Your task to perform on an android device: allow notifications from all sites in the chrome app Image 0: 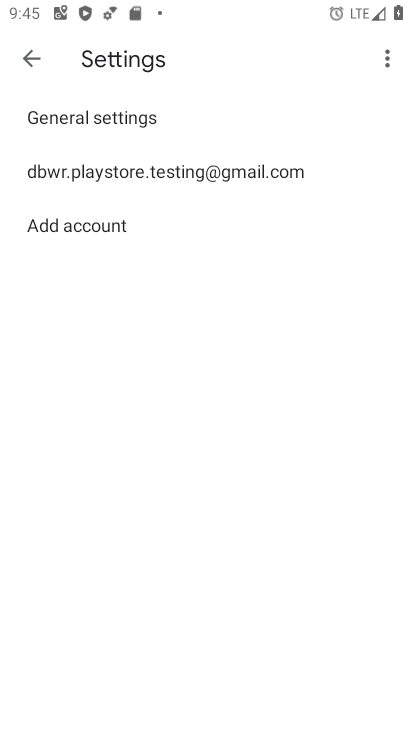
Step 0: press home button
Your task to perform on an android device: allow notifications from all sites in the chrome app Image 1: 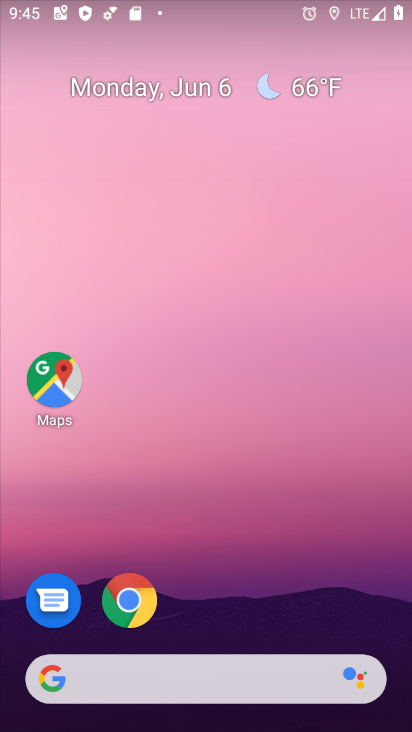
Step 1: drag from (69, 519) to (275, 239)
Your task to perform on an android device: allow notifications from all sites in the chrome app Image 2: 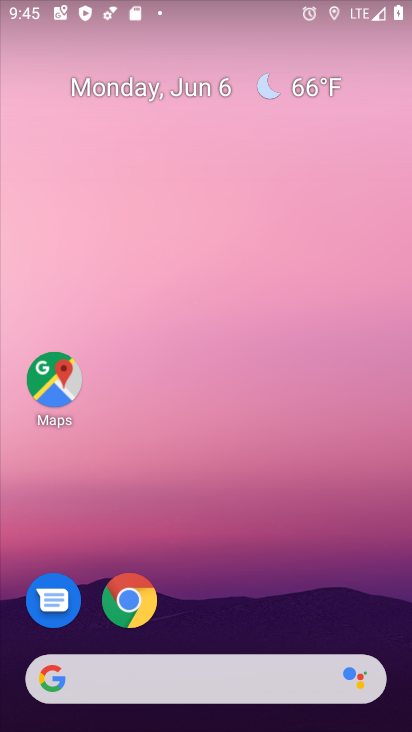
Step 2: drag from (76, 537) to (240, 255)
Your task to perform on an android device: allow notifications from all sites in the chrome app Image 3: 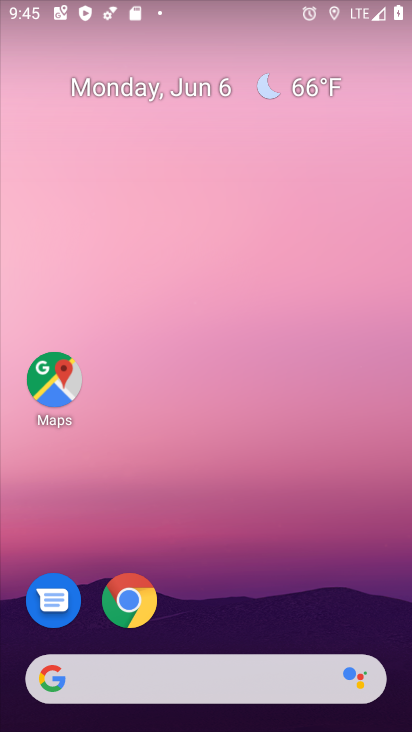
Step 3: drag from (28, 592) to (331, 123)
Your task to perform on an android device: allow notifications from all sites in the chrome app Image 4: 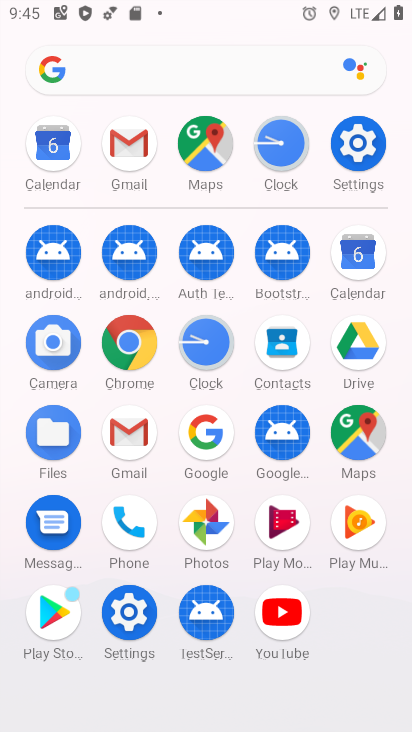
Step 4: click (344, 136)
Your task to perform on an android device: allow notifications from all sites in the chrome app Image 5: 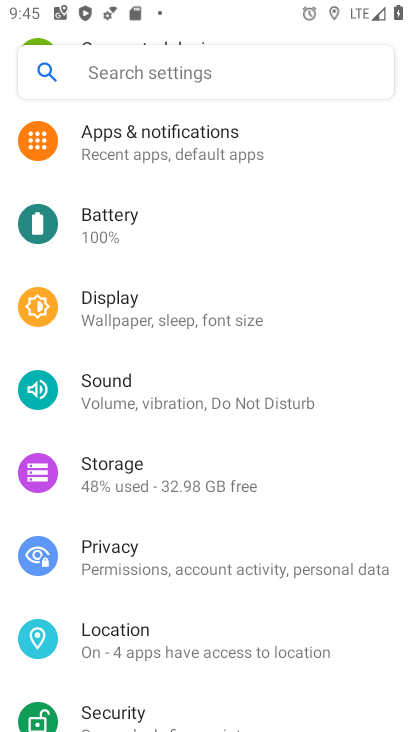
Step 5: click (344, 139)
Your task to perform on an android device: allow notifications from all sites in the chrome app Image 6: 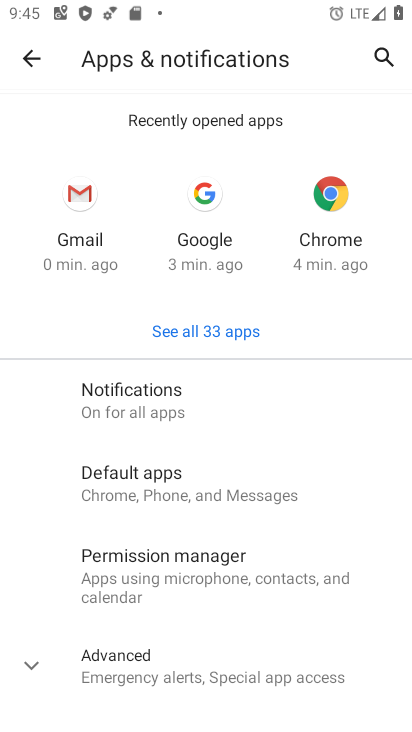
Step 6: click (123, 386)
Your task to perform on an android device: allow notifications from all sites in the chrome app Image 7: 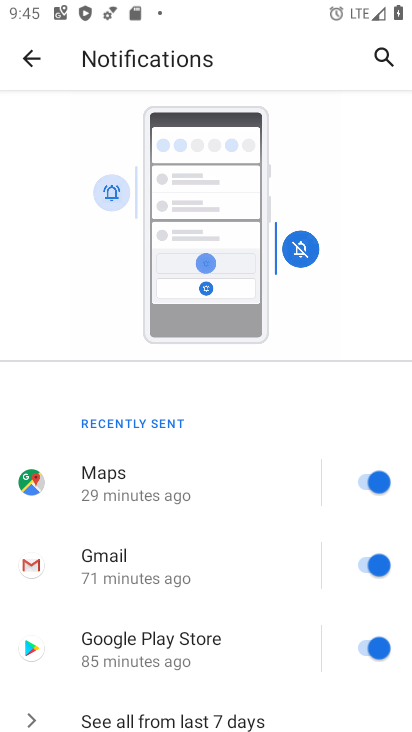
Step 7: drag from (36, 632) to (373, 351)
Your task to perform on an android device: allow notifications from all sites in the chrome app Image 8: 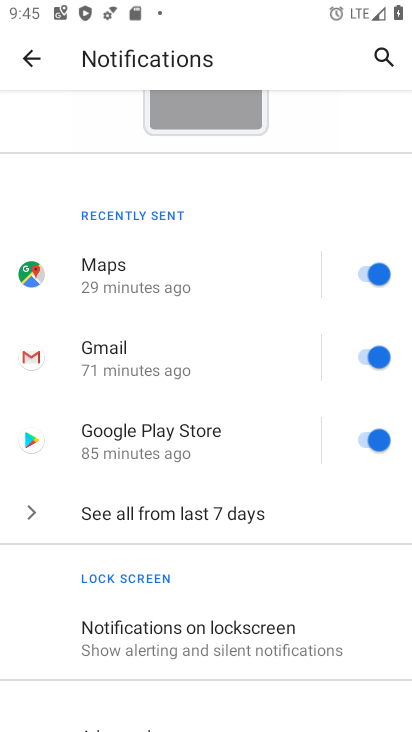
Step 8: press home button
Your task to perform on an android device: allow notifications from all sites in the chrome app Image 9: 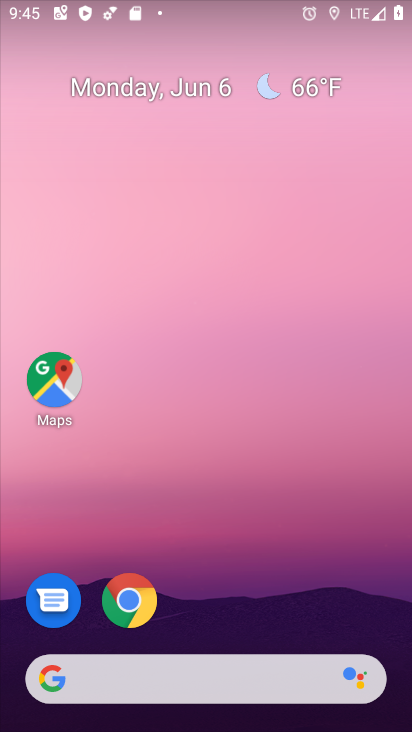
Step 9: click (124, 598)
Your task to perform on an android device: allow notifications from all sites in the chrome app Image 10: 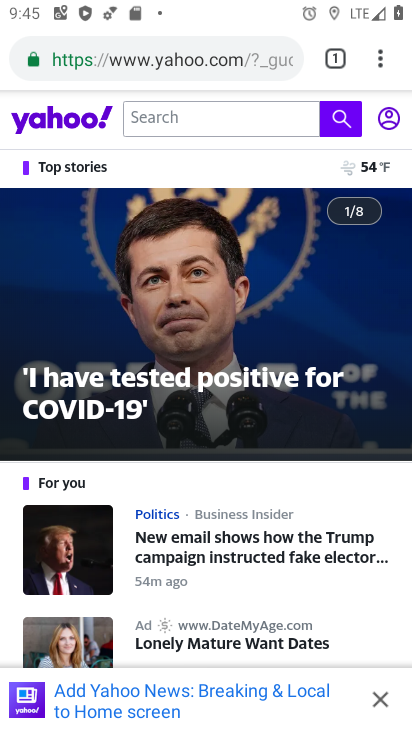
Step 10: click (384, 54)
Your task to perform on an android device: allow notifications from all sites in the chrome app Image 11: 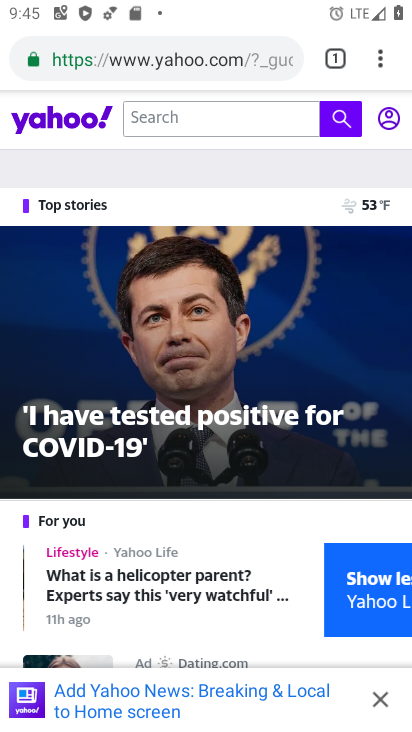
Step 11: click (382, 56)
Your task to perform on an android device: allow notifications from all sites in the chrome app Image 12: 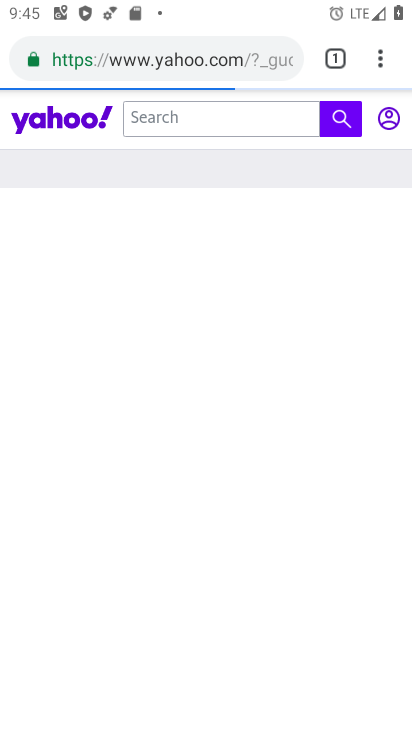
Step 12: click (382, 56)
Your task to perform on an android device: allow notifications from all sites in the chrome app Image 13: 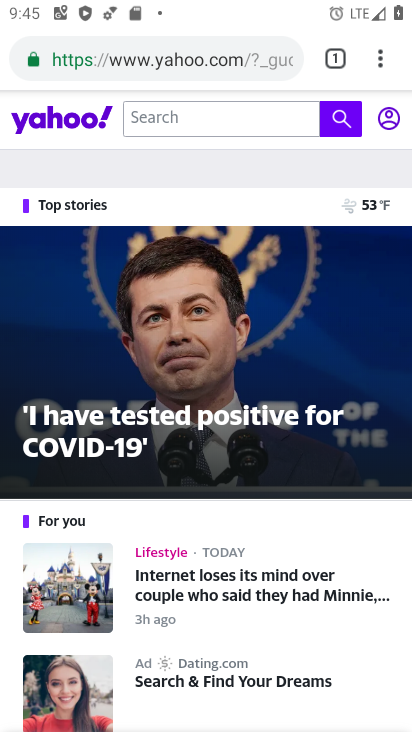
Step 13: click (381, 64)
Your task to perform on an android device: allow notifications from all sites in the chrome app Image 14: 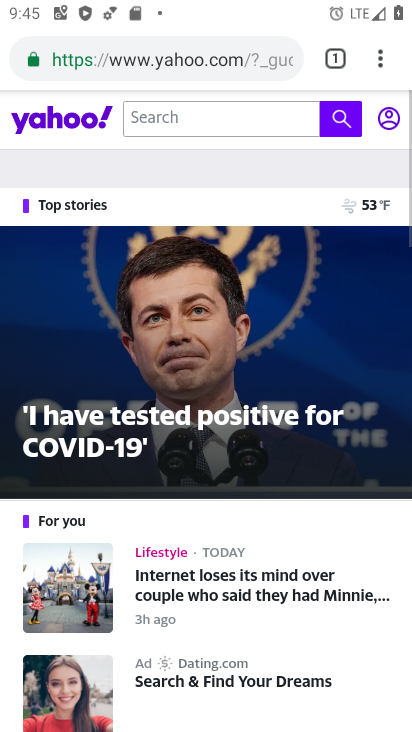
Step 14: click (381, 64)
Your task to perform on an android device: allow notifications from all sites in the chrome app Image 15: 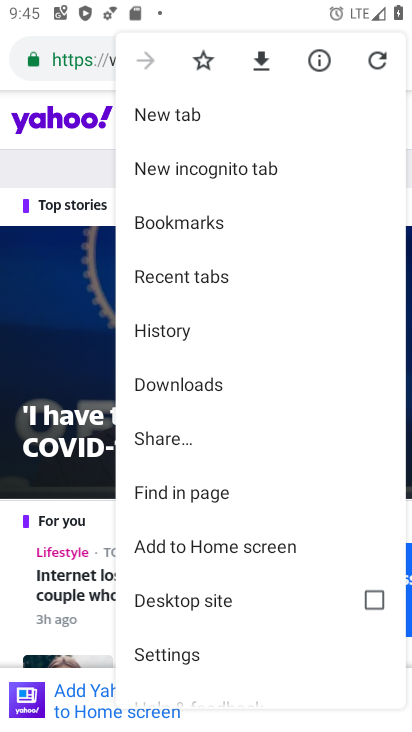
Step 15: click (222, 660)
Your task to perform on an android device: allow notifications from all sites in the chrome app Image 16: 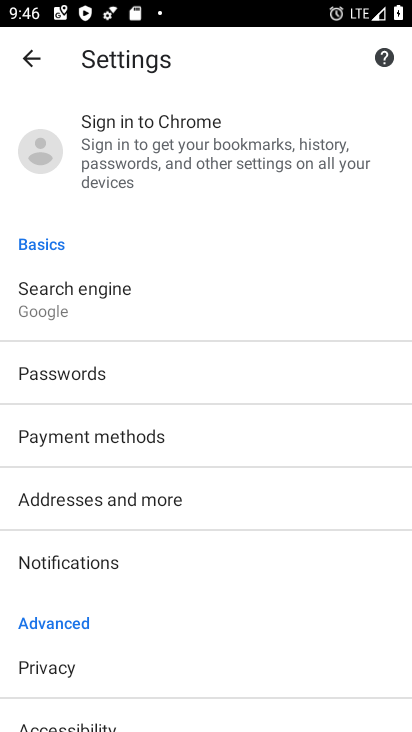
Step 16: click (54, 563)
Your task to perform on an android device: allow notifications from all sites in the chrome app Image 17: 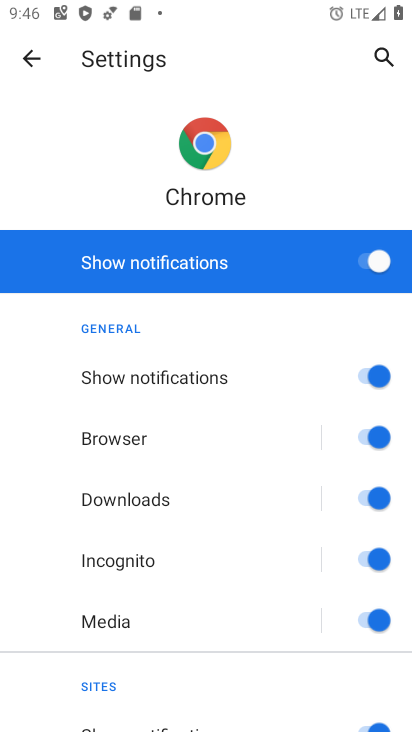
Step 17: task complete